Your task to perform on an android device: Go to Amazon Image 0: 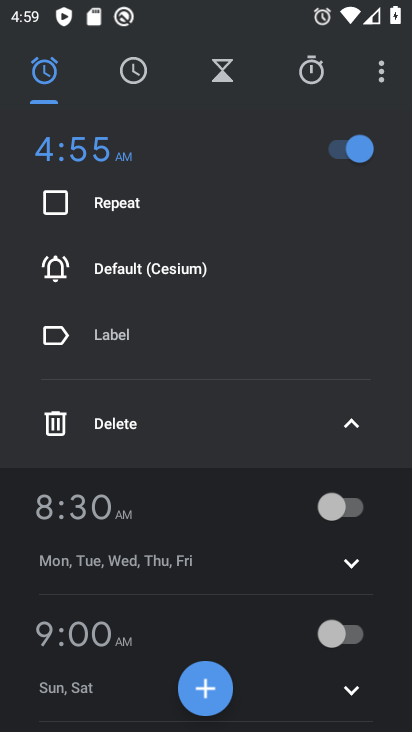
Step 0: press home button
Your task to perform on an android device: Go to Amazon Image 1: 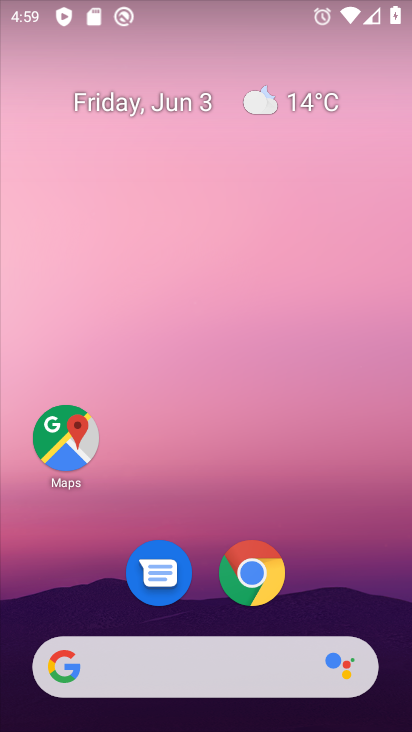
Step 1: click (253, 573)
Your task to perform on an android device: Go to Amazon Image 2: 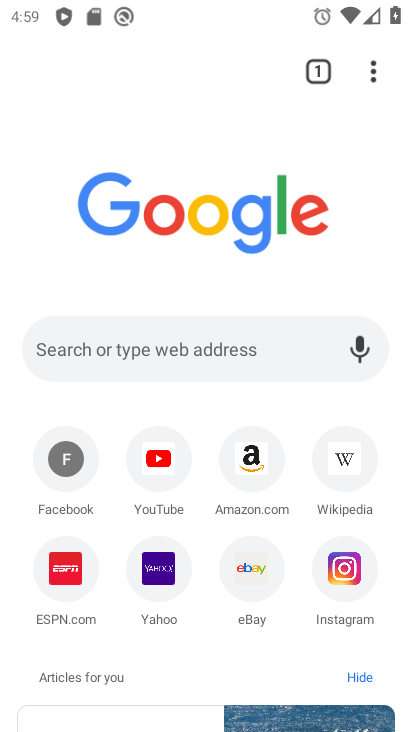
Step 2: click (243, 465)
Your task to perform on an android device: Go to Amazon Image 3: 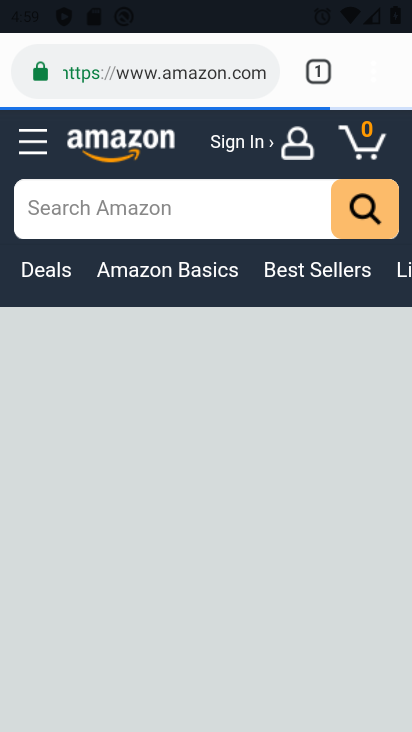
Step 3: task complete